Your task to perform on an android device: open app "Grab" (install if not already installed) Image 0: 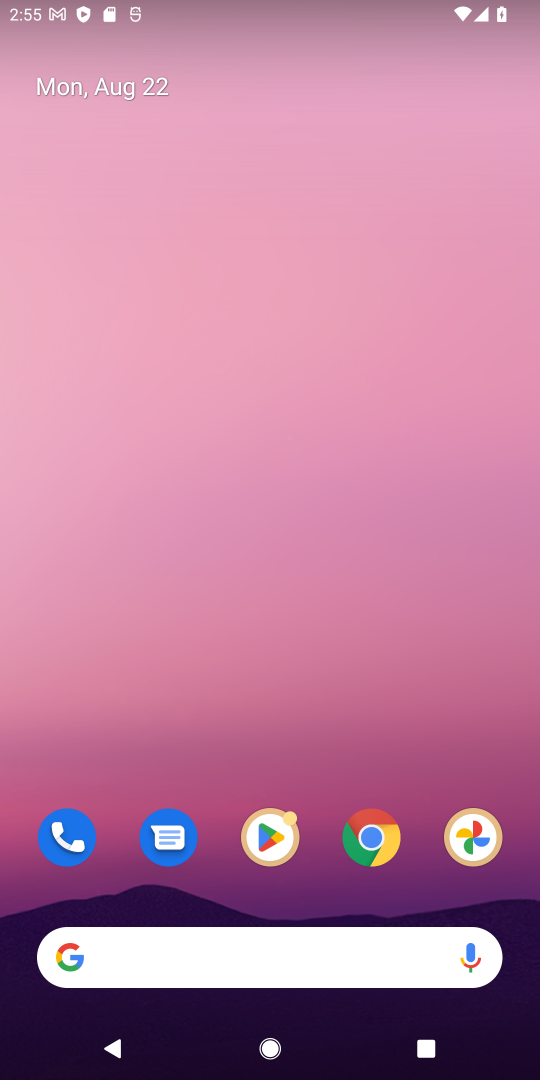
Step 0: drag from (524, 912) to (198, 54)
Your task to perform on an android device: open app "Grab" (install if not already installed) Image 1: 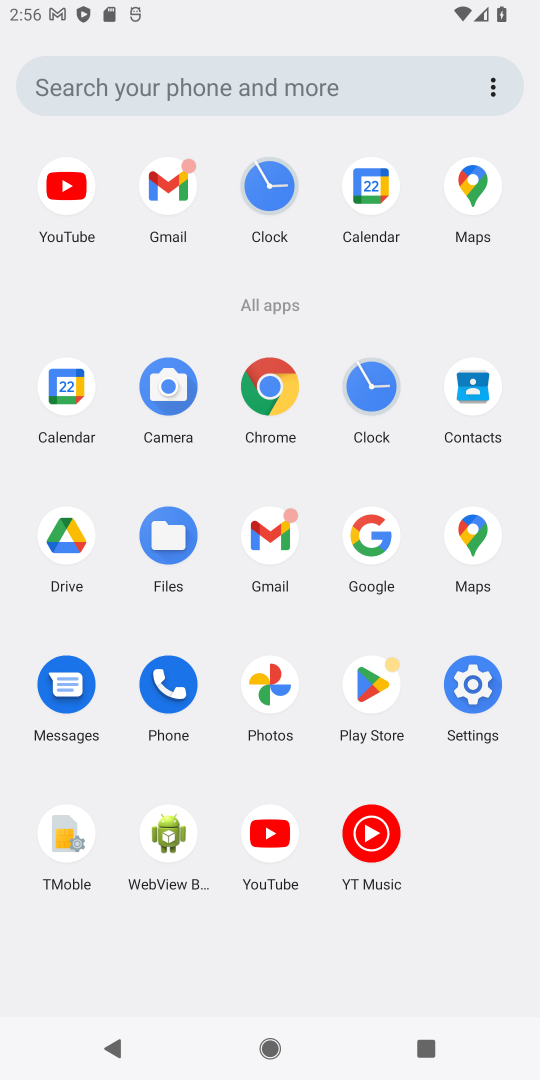
Step 1: click (415, 701)
Your task to perform on an android device: open app "Grab" (install if not already installed) Image 2: 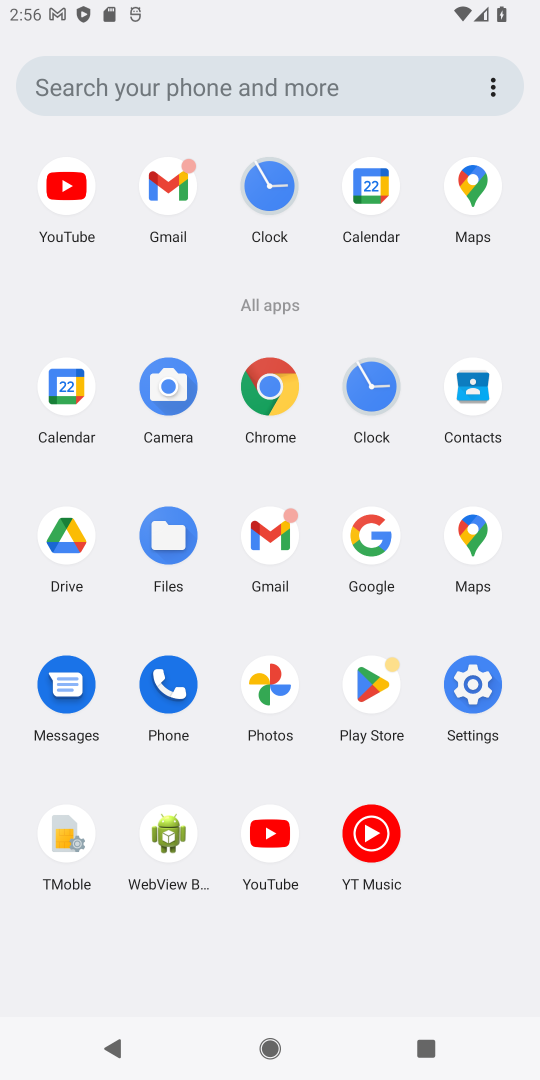
Step 2: click (383, 698)
Your task to perform on an android device: open app "Grab" (install if not already installed) Image 3: 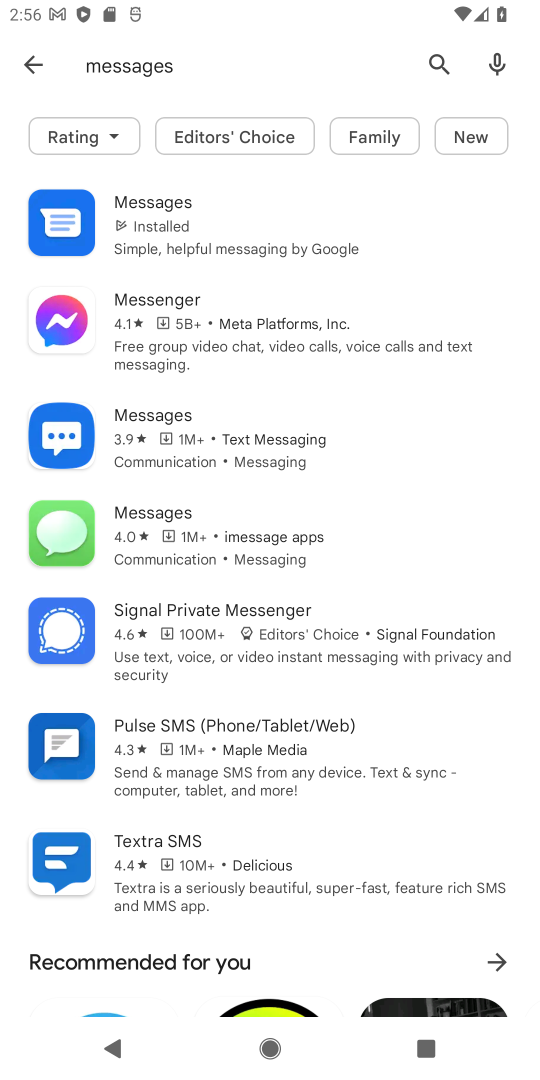
Step 3: press back button
Your task to perform on an android device: open app "Grab" (install if not already installed) Image 4: 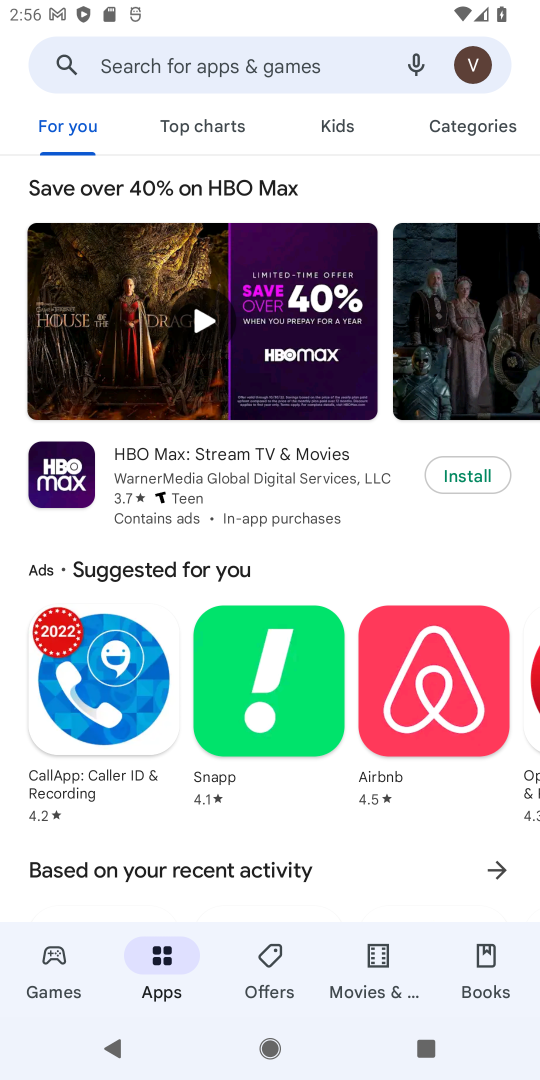
Step 4: click (152, 56)
Your task to perform on an android device: open app "Grab" (install if not already installed) Image 5: 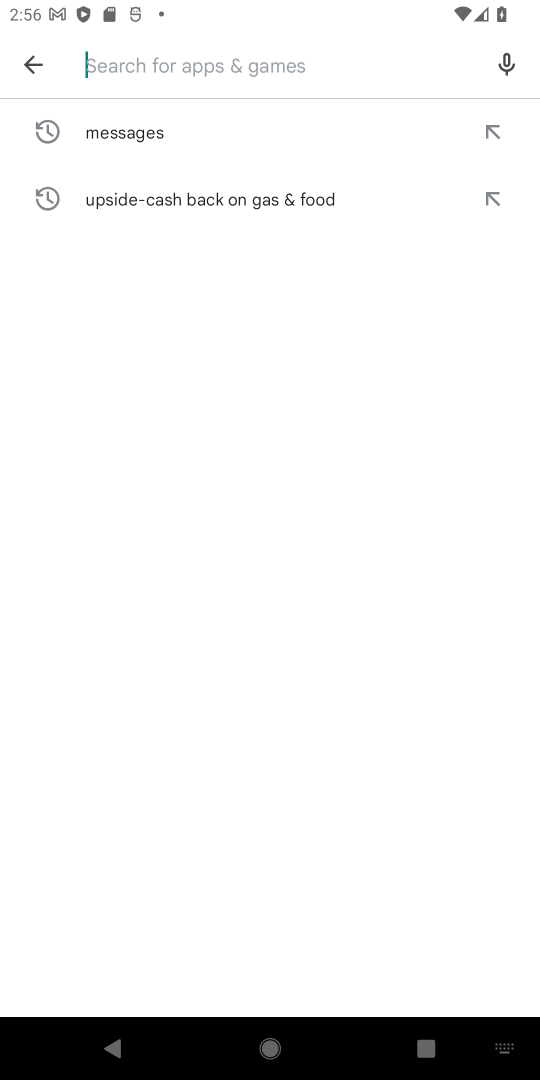
Step 5: type "Grab"
Your task to perform on an android device: open app "Grab" (install if not already installed) Image 6: 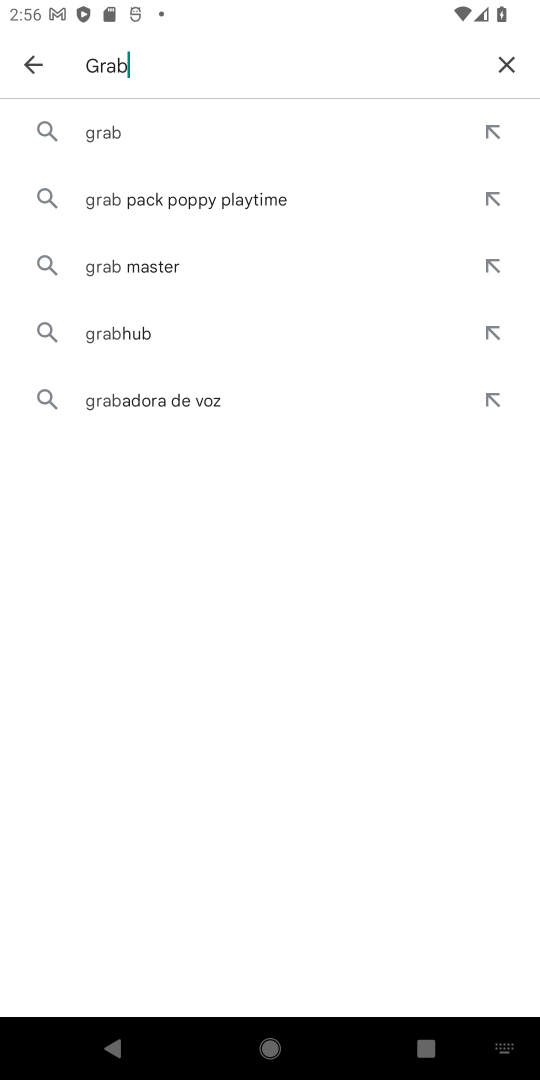
Step 6: click (124, 151)
Your task to perform on an android device: open app "Grab" (install if not already installed) Image 7: 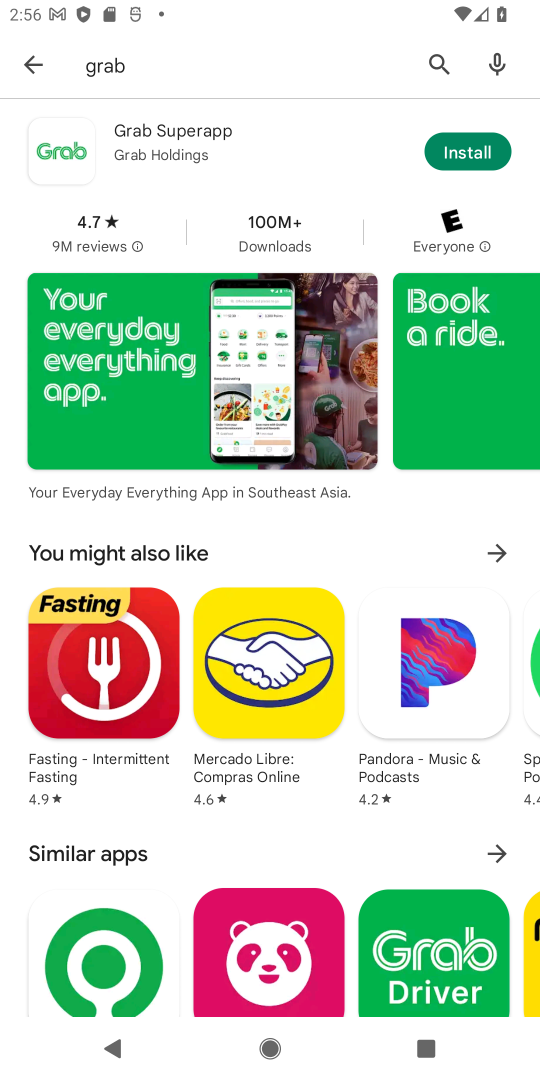
Step 7: task complete